Your task to perform on an android device: Open Google Maps and go to "Timeline" Image 0: 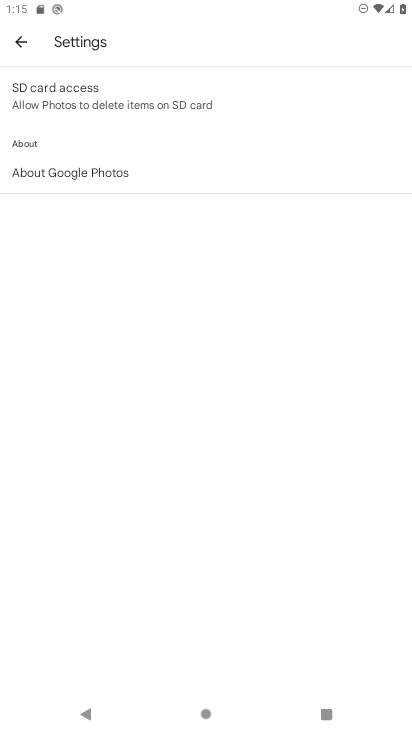
Step 0: press home button
Your task to perform on an android device: Open Google Maps and go to "Timeline" Image 1: 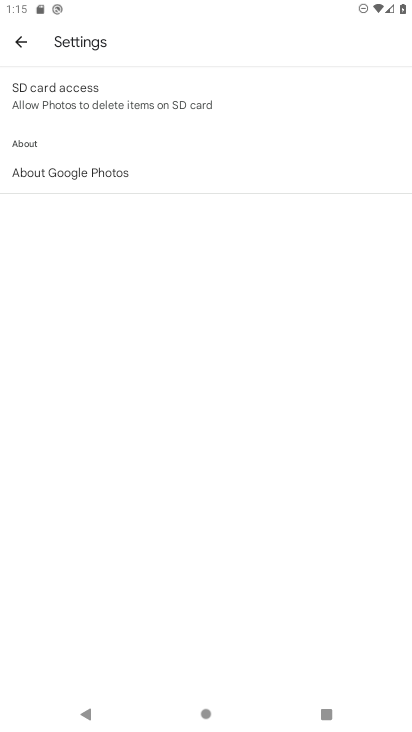
Step 1: press home button
Your task to perform on an android device: Open Google Maps and go to "Timeline" Image 2: 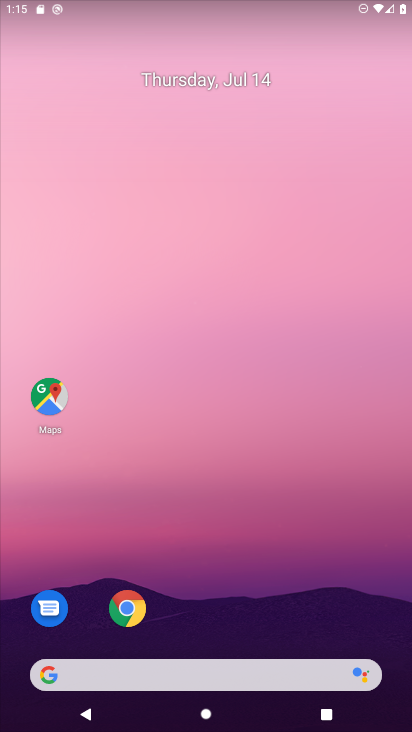
Step 2: drag from (242, 446) to (264, 80)
Your task to perform on an android device: Open Google Maps and go to "Timeline" Image 3: 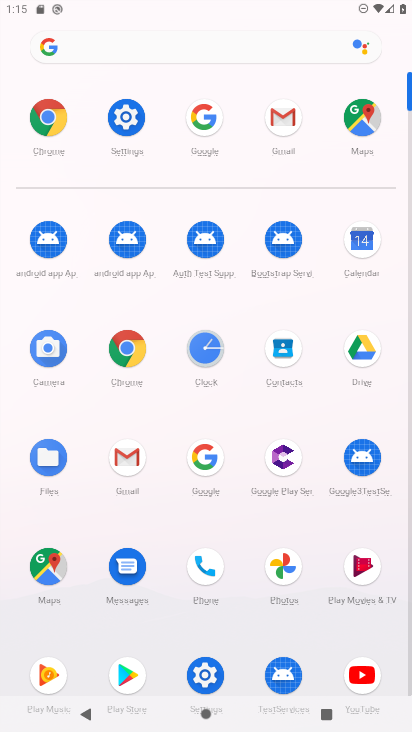
Step 3: click (40, 568)
Your task to perform on an android device: Open Google Maps and go to "Timeline" Image 4: 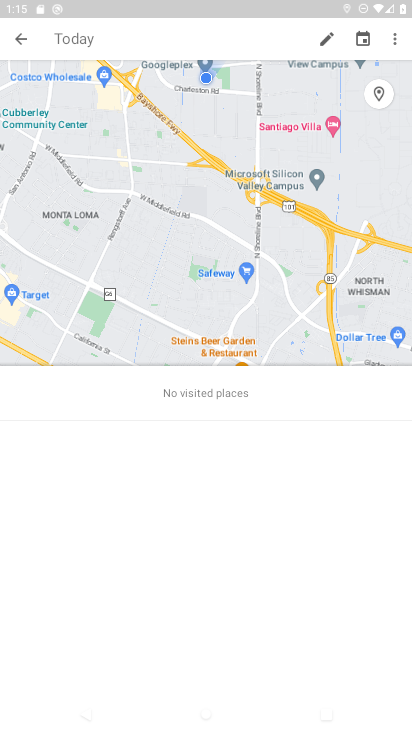
Step 4: click (23, 38)
Your task to perform on an android device: Open Google Maps and go to "Timeline" Image 5: 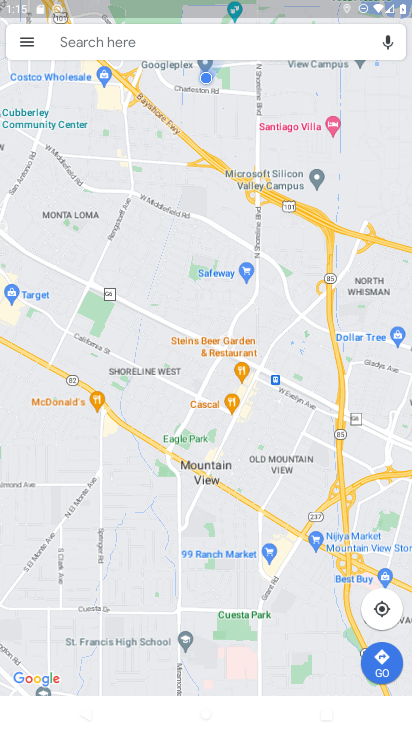
Step 5: click (27, 44)
Your task to perform on an android device: Open Google Maps and go to "Timeline" Image 6: 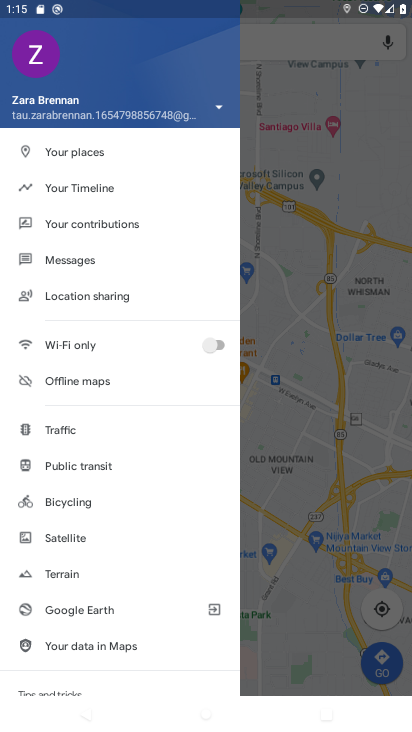
Step 6: click (73, 187)
Your task to perform on an android device: Open Google Maps and go to "Timeline" Image 7: 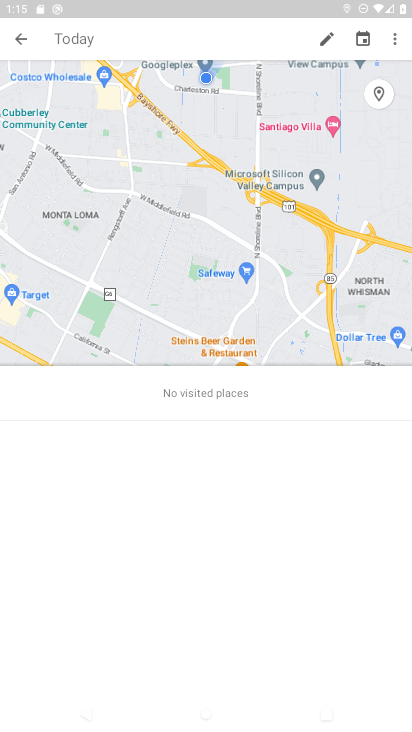
Step 7: task complete